Your task to perform on an android device: change the upload size in google photos Image 0: 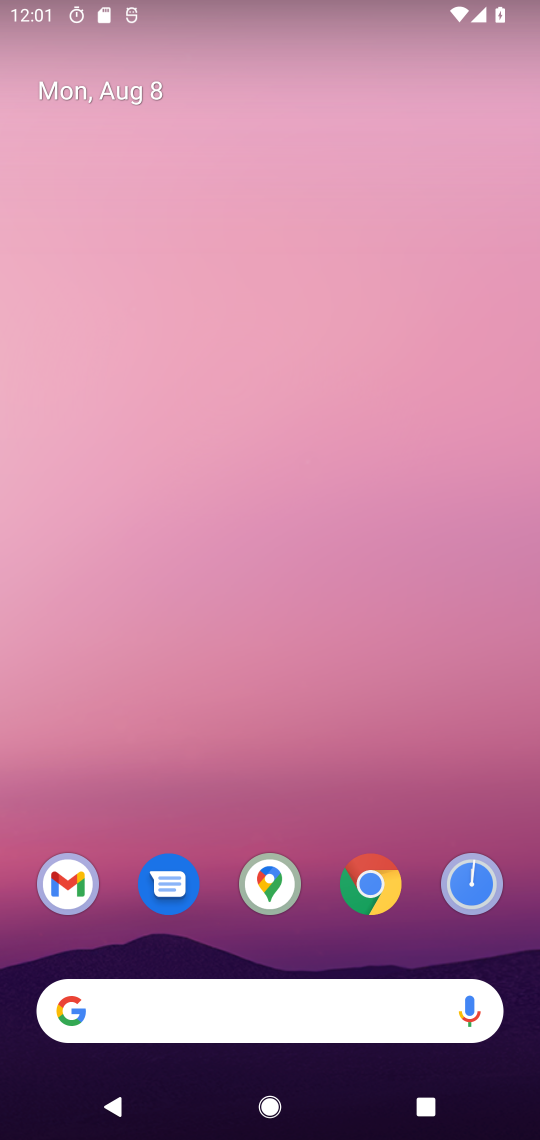
Step 0: drag from (222, 728) to (224, 87)
Your task to perform on an android device: change the upload size in google photos Image 1: 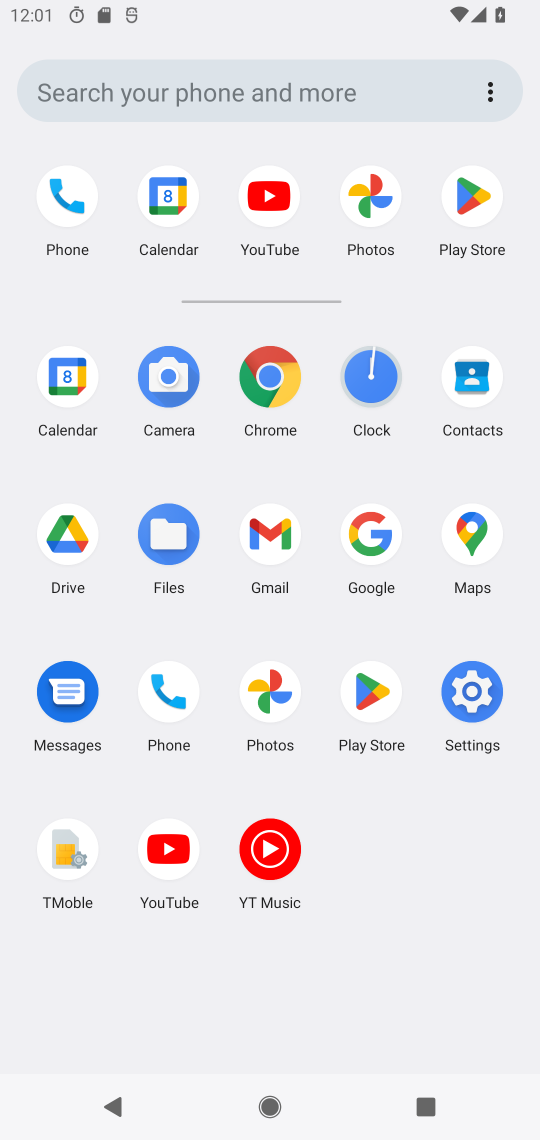
Step 1: click (272, 724)
Your task to perform on an android device: change the upload size in google photos Image 2: 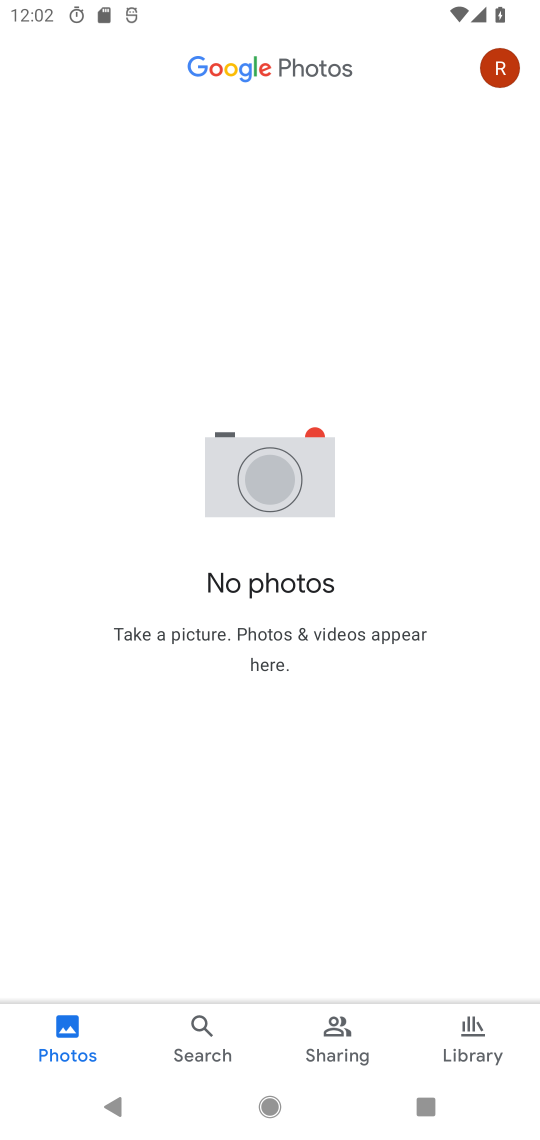
Step 2: click (499, 77)
Your task to perform on an android device: change the upload size in google photos Image 3: 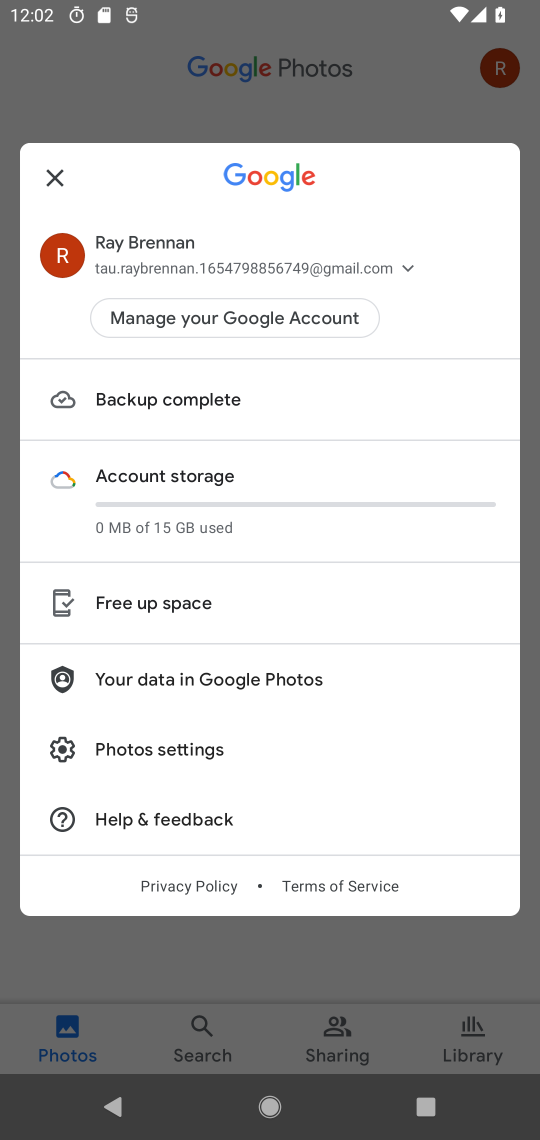
Step 3: click (161, 746)
Your task to perform on an android device: change the upload size in google photos Image 4: 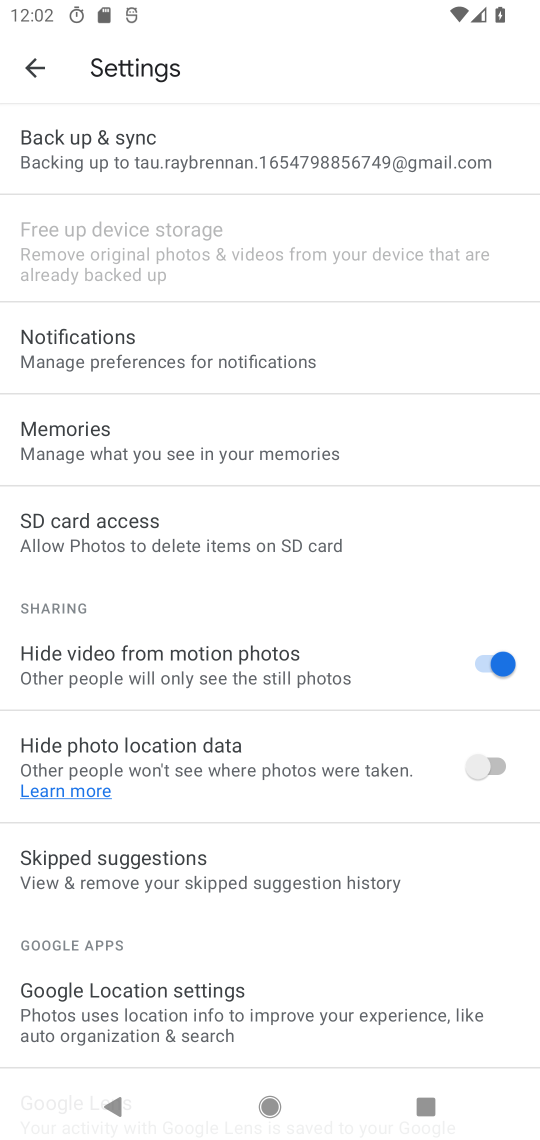
Step 4: click (133, 123)
Your task to perform on an android device: change the upload size in google photos Image 5: 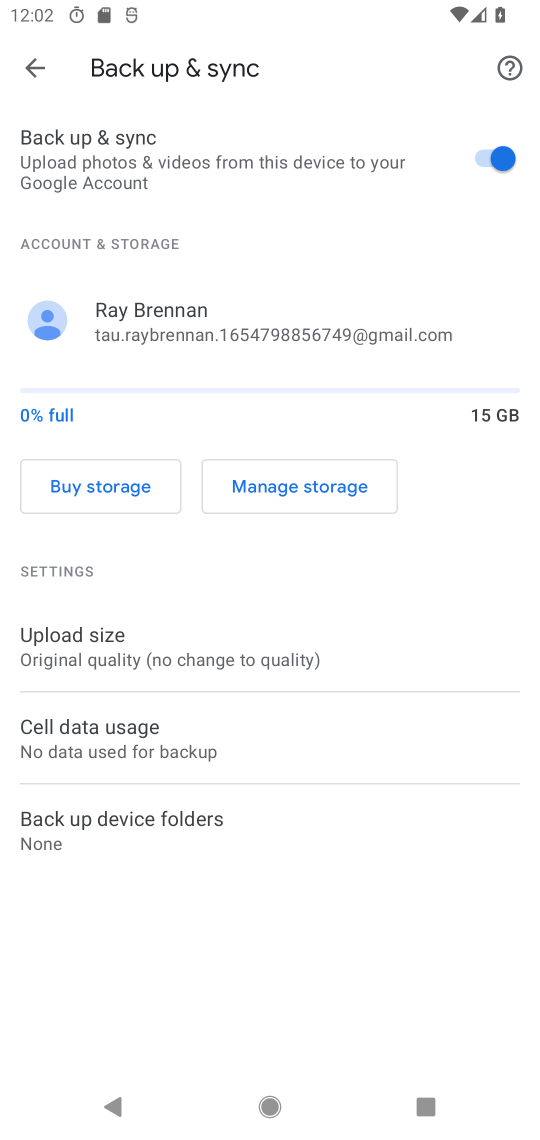
Step 5: click (122, 627)
Your task to perform on an android device: change the upload size in google photos Image 6: 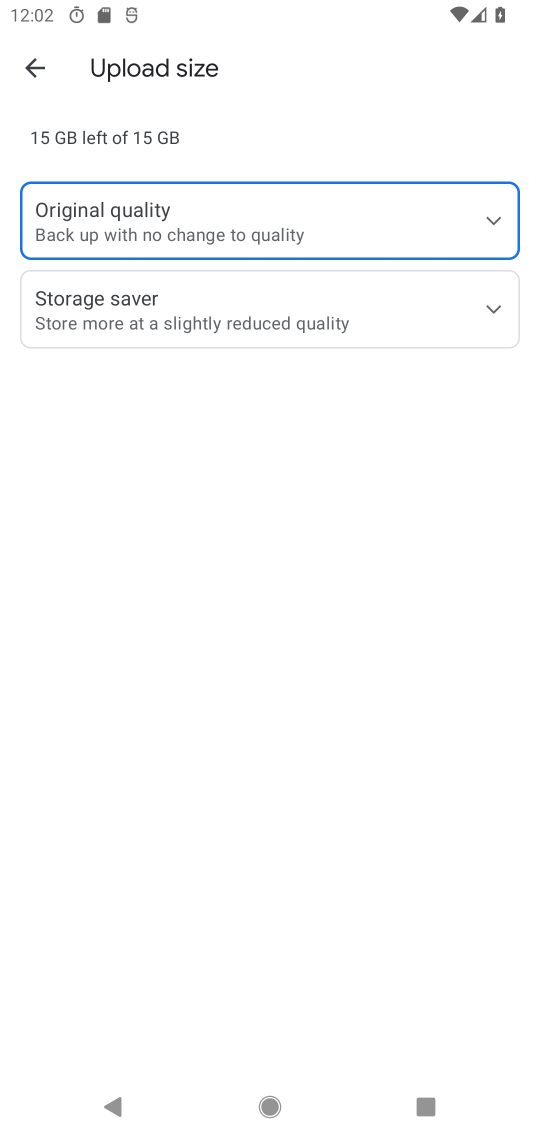
Step 6: click (417, 302)
Your task to perform on an android device: change the upload size in google photos Image 7: 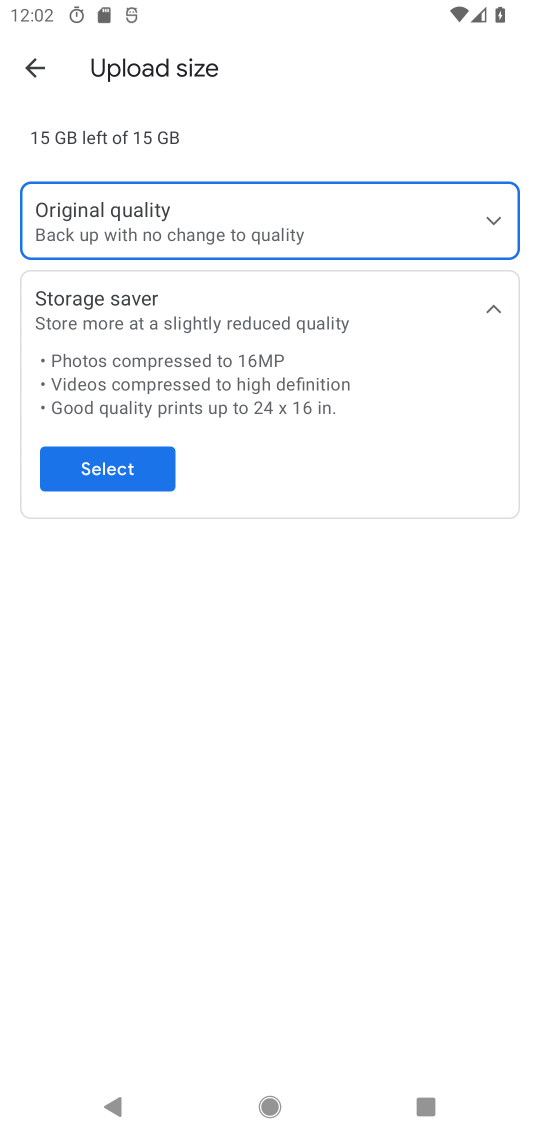
Step 7: click (86, 457)
Your task to perform on an android device: change the upload size in google photos Image 8: 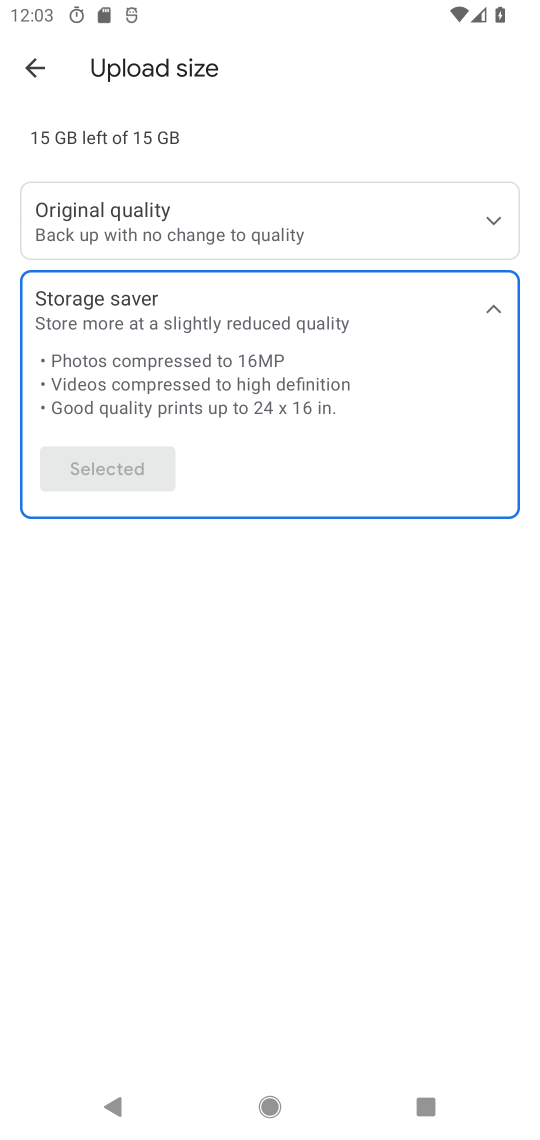
Step 8: task complete